Your task to perform on an android device: change text size in settings app Image 0: 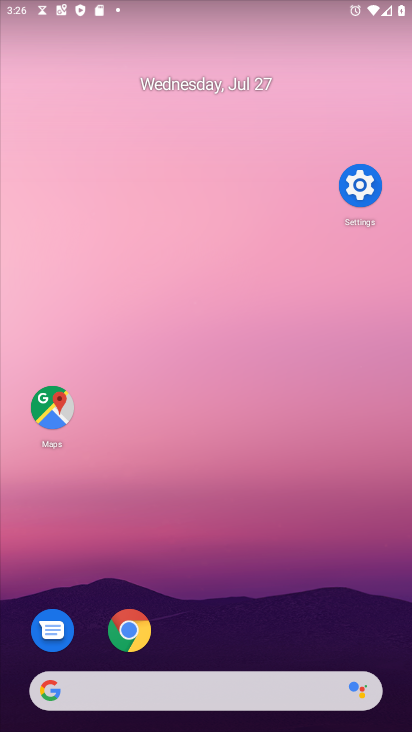
Step 0: press home button
Your task to perform on an android device: change text size in settings app Image 1: 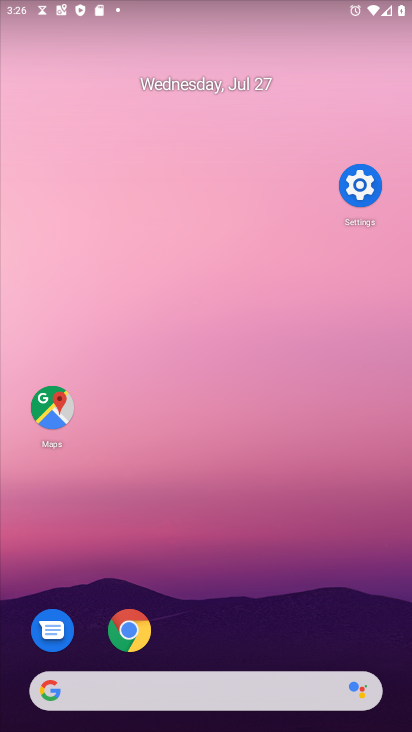
Step 1: drag from (236, 619) to (215, 63)
Your task to perform on an android device: change text size in settings app Image 2: 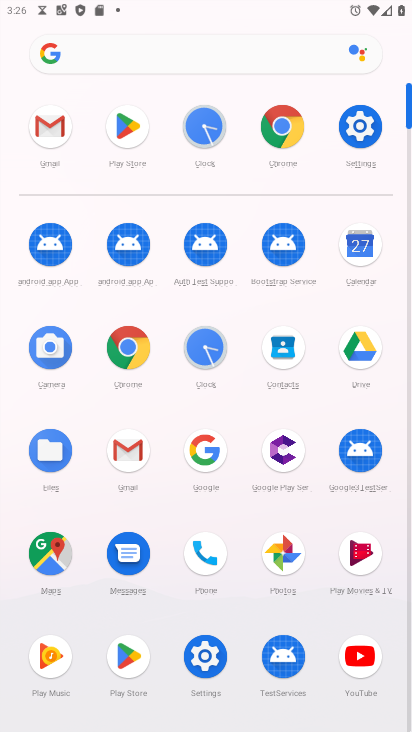
Step 2: click (359, 133)
Your task to perform on an android device: change text size in settings app Image 3: 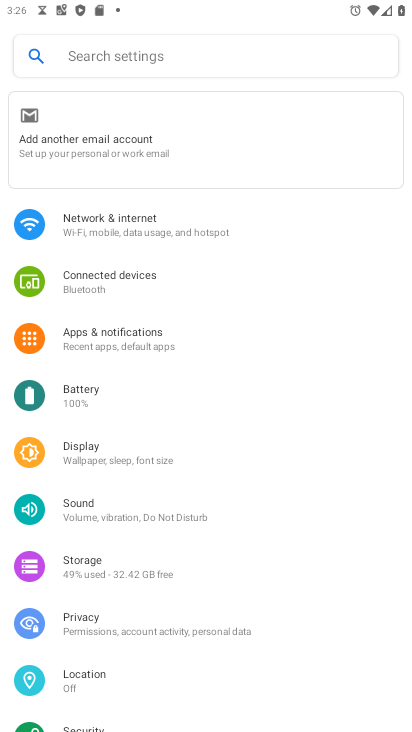
Step 3: click (74, 460)
Your task to perform on an android device: change text size in settings app Image 4: 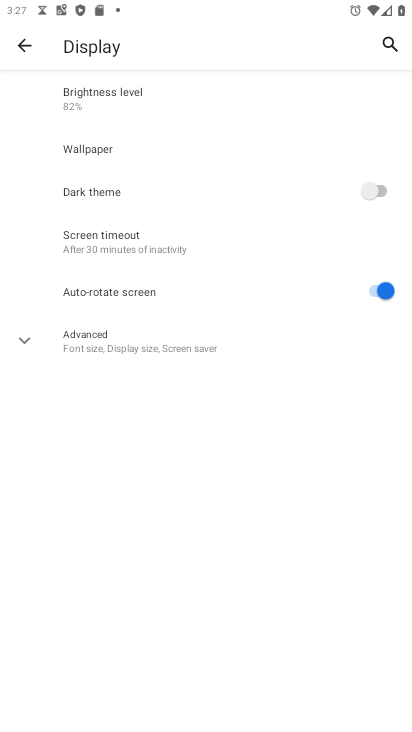
Step 4: click (104, 348)
Your task to perform on an android device: change text size in settings app Image 5: 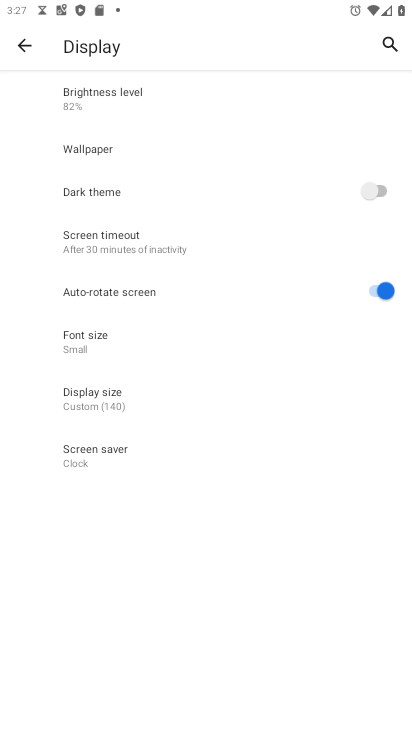
Step 5: click (83, 346)
Your task to perform on an android device: change text size in settings app Image 6: 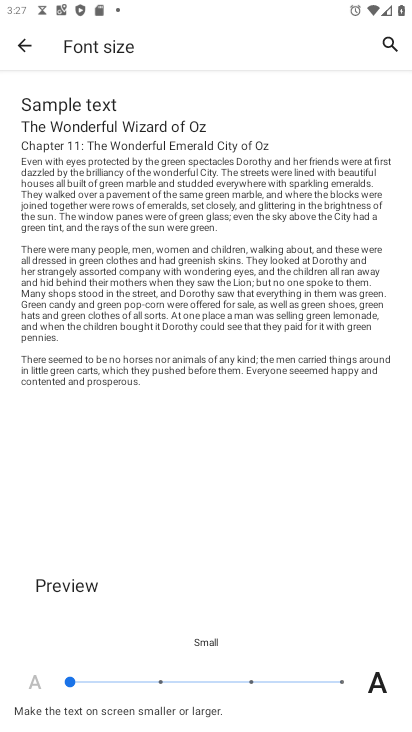
Step 6: click (342, 685)
Your task to perform on an android device: change text size in settings app Image 7: 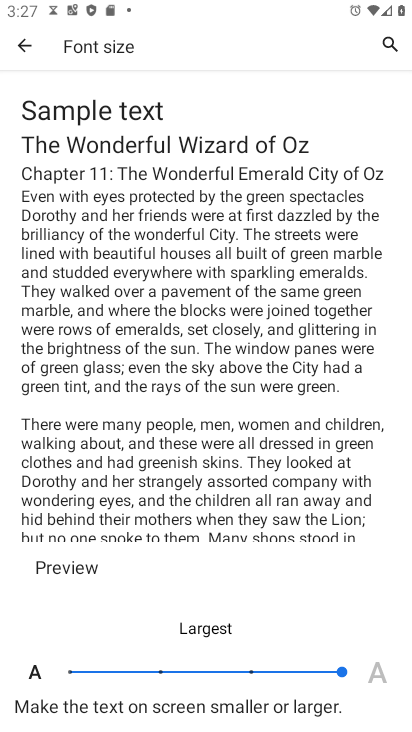
Step 7: click (248, 673)
Your task to perform on an android device: change text size in settings app Image 8: 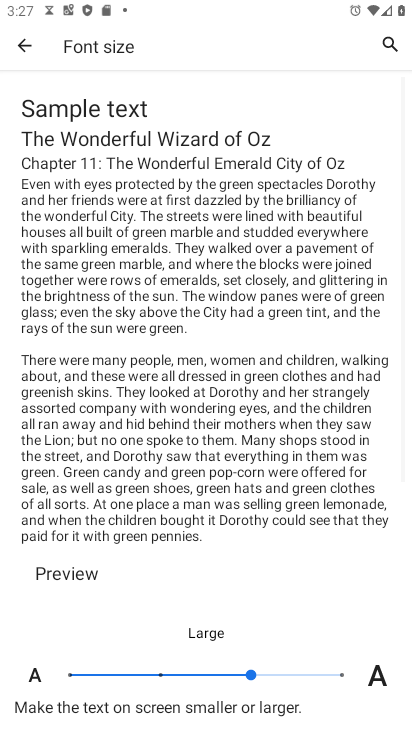
Step 8: click (340, 676)
Your task to perform on an android device: change text size in settings app Image 9: 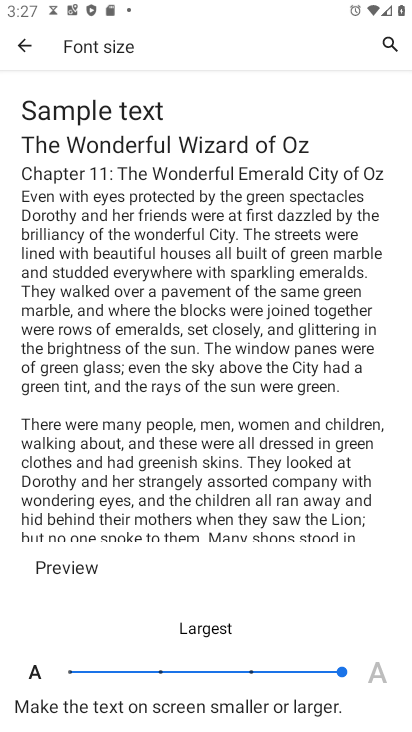
Step 9: task complete